Your task to perform on an android device: find snoozed emails in the gmail app Image 0: 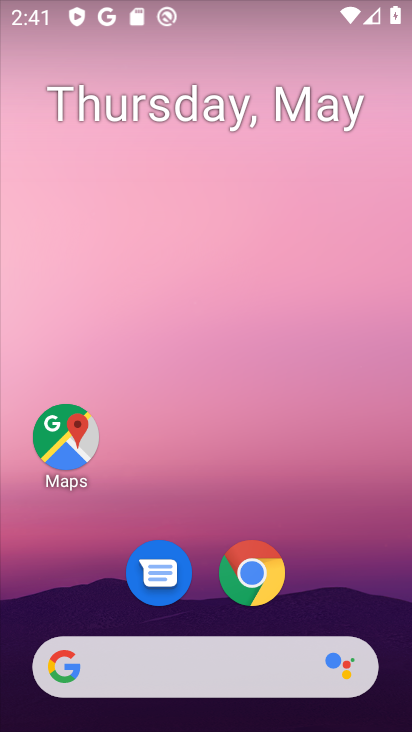
Step 0: drag from (91, 595) to (188, 147)
Your task to perform on an android device: find snoozed emails in the gmail app Image 1: 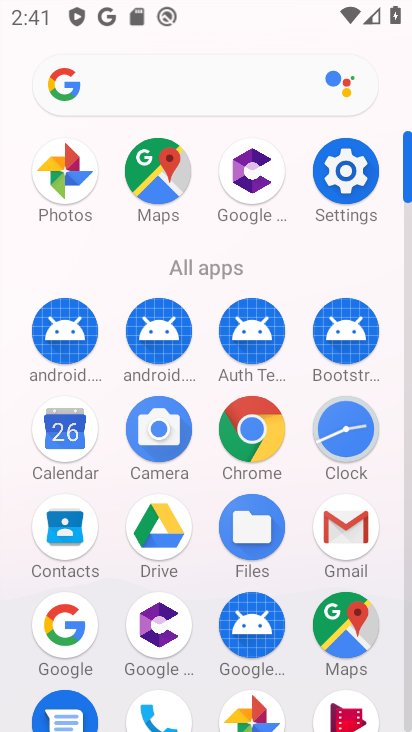
Step 1: click (335, 540)
Your task to perform on an android device: find snoozed emails in the gmail app Image 2: 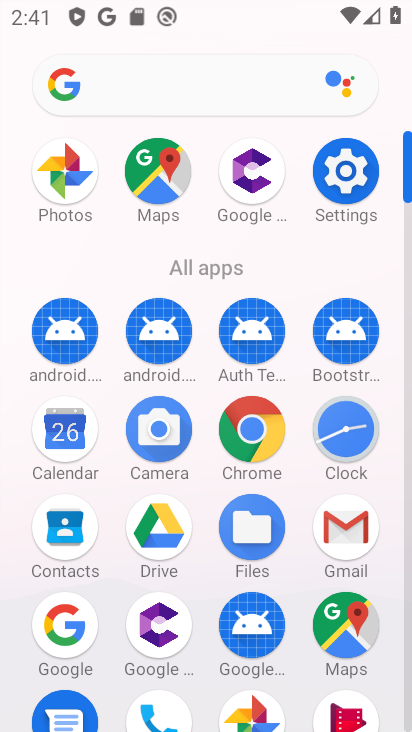
Step 2: click (365, 510)
Your task to perform on an android device: find snoozed emails in the gmail app Image 3: 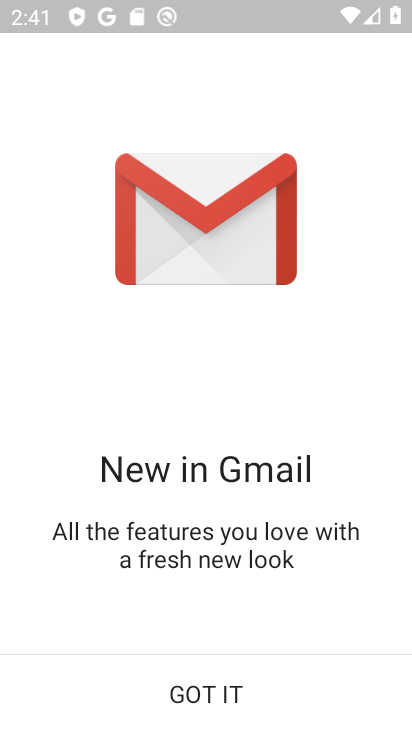
Step 3: click (217, 693)
Your task to perform on an android device: find snoozed emails in the gmail app Image 4: 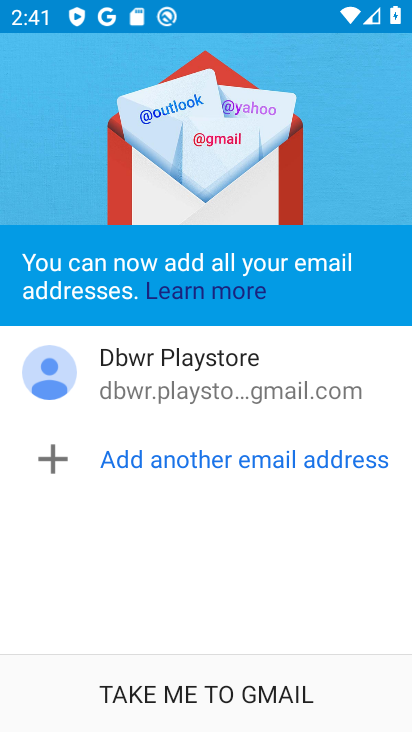
Step 4: click (217, 693)
Your task to perform on an android device: find snoozed emails in the gmail app Image 5: 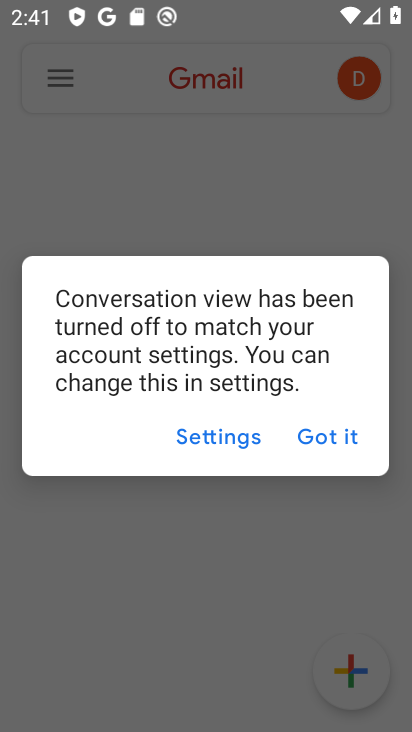
Step 5: click (336, 434)
Your task to perform on an android device: find snoozed emails in the gmail app Image 6: 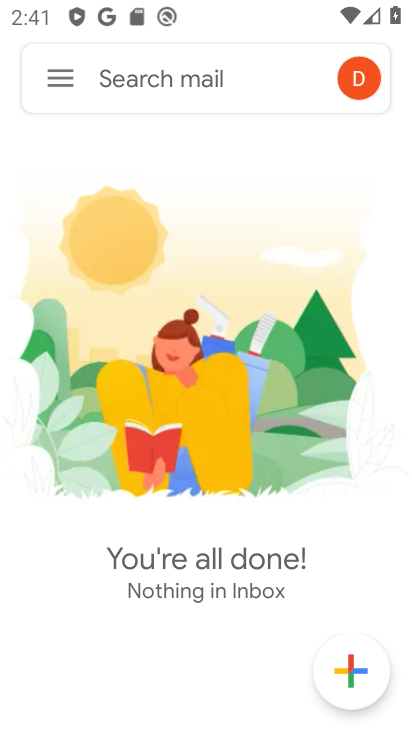
Step 6: click (74, 87)
Your task to perform on an android device: find snoozed emails in the gmail app Image 7: 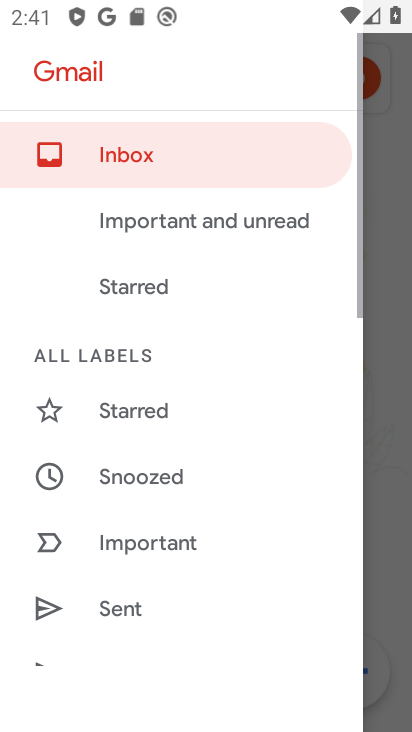
Step 7: drag from (147, 626) to (281, 174)
Your task to perform on an android device: find snoozed emails in the gmail app Image 8: 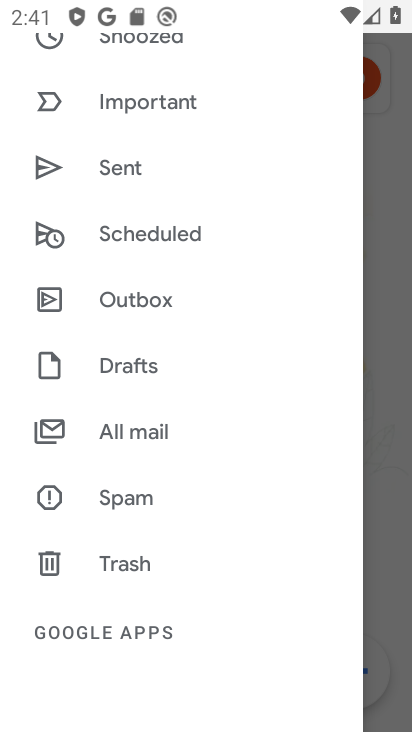
Step 8: drag from (209, 197) to (191, 575)
Your task to perform on an android device: find snoozed emails in the gmail app Image 9: 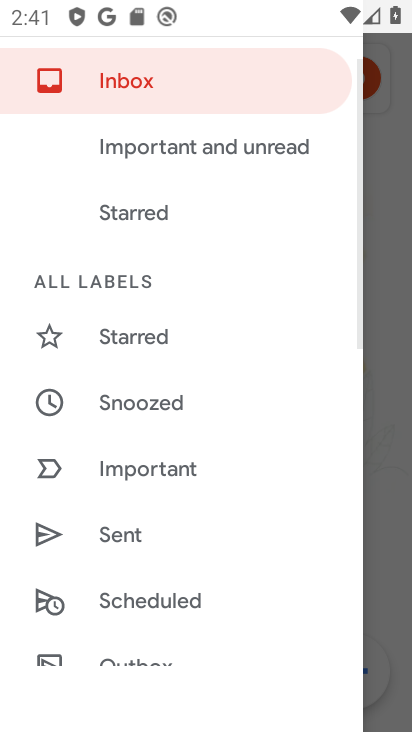
Step 9: click (158, 397)
Your task to perform on an android device: find snoozed emails in the gmail app Image 10: 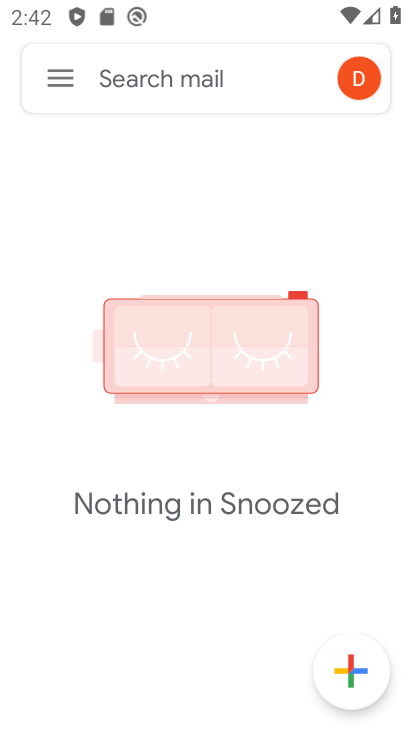
Step 10: task complete